Your task to perform on an android device: Search for the best rated headphones on AliExpress. Image 0: 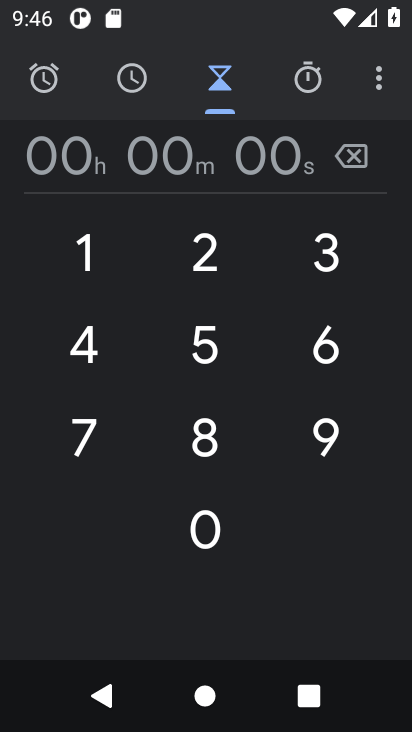
Step 0: click (205, 436)
Your task to perform on an android device: Search for the best rated headphones on AliExpress. Image 1: 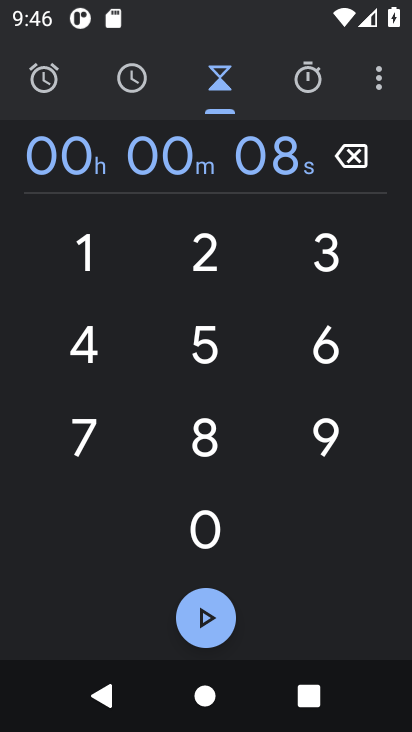
Step 1: click (221, 336)
Your task to perform on an android device: Search for the best rated headphones on AliExpress. Image 2: 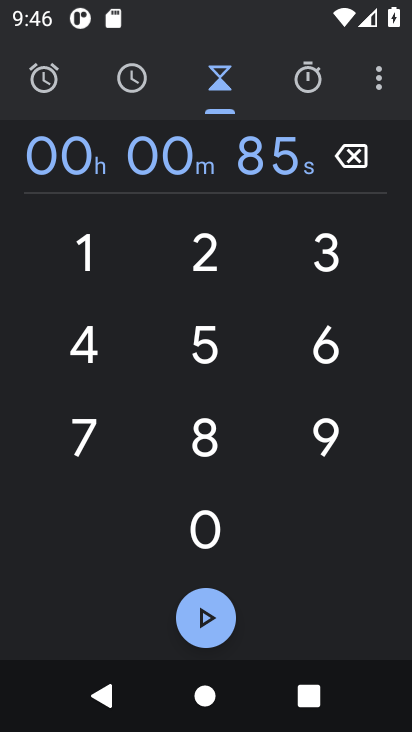
Step 2: click (328, 250)
Your task to perform on an android device: Search for the best rated headphones on AliExpress. Image 3: 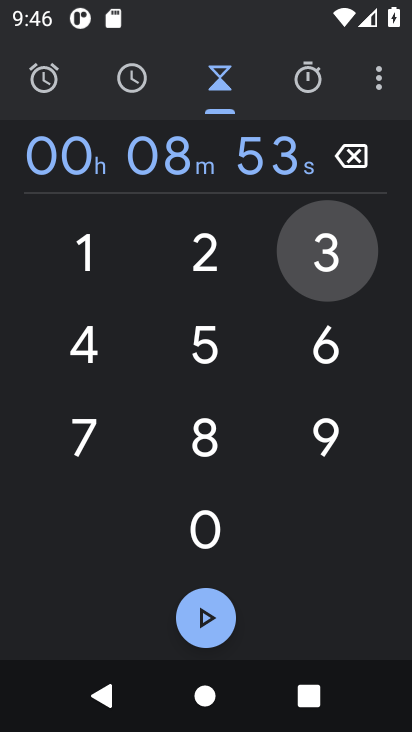
Step 3: click (316, 382)
Your task to perform on an android device: Search for the best rated headphones on AliExpress. Image 4: 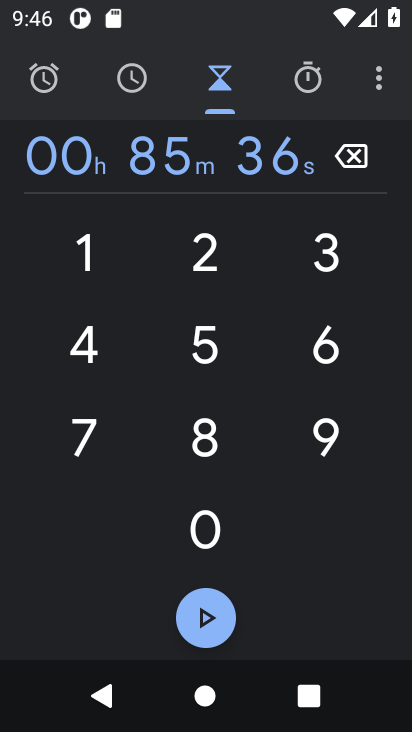
Step 4: click (332, 409)
Your task to perform on an android device: Search for the best rated headphones on AliExpress. Image 5: 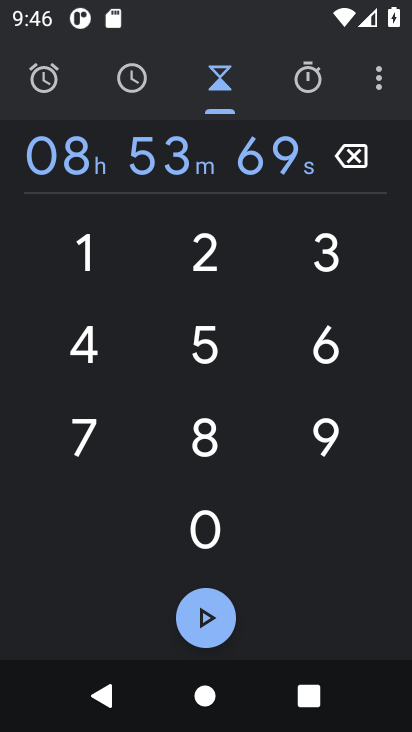
Step 5: click (219, 346)
Your task to perform on an android device: Search for the best rated headphones on AliExpress. Image 6: 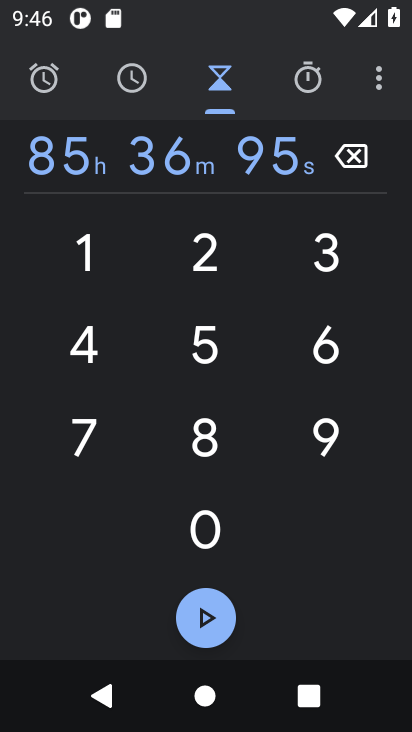
Step 6: click (289, 90)
Your task to perform on an android device: Search for the best rated headphones on AliExpress. Image 7: 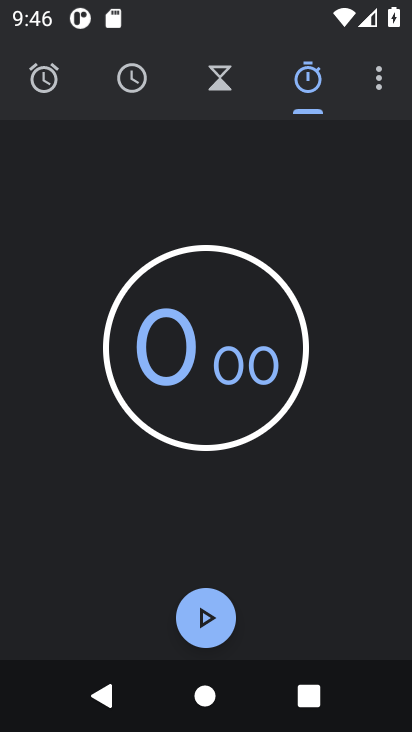
Step 7: click (109, 53)
Your task to perform on an android device: Search for the best rated headphones on AliExpress. Image 8: 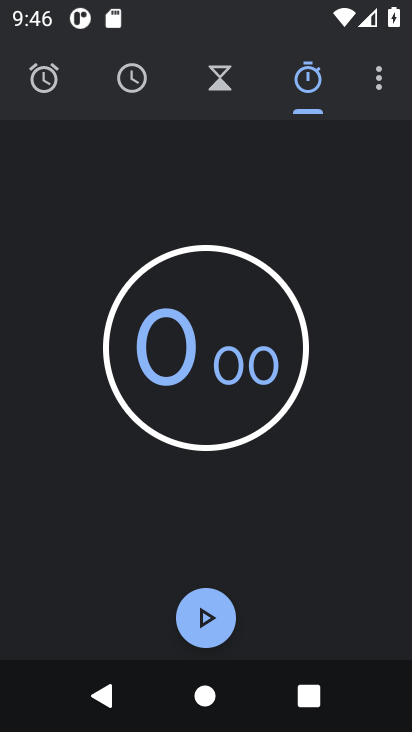
Step 8: click (131, 82)
Your task to perform on an android device: Search for the best rated headphones on AliExpress. Image 9: 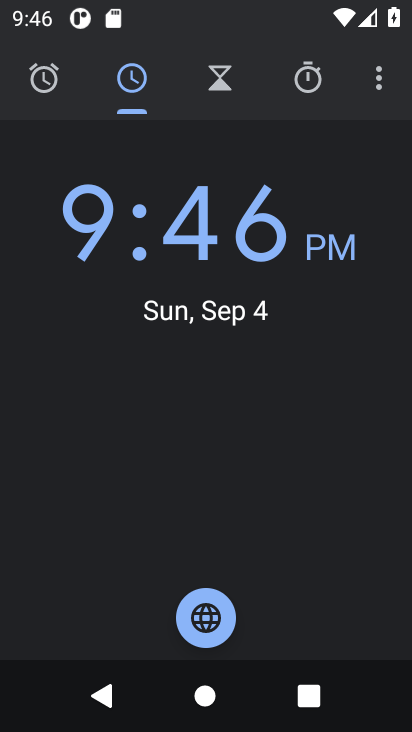
Step 9: task complete